Your task to perform on an android device: Search for the ikea sjalv lamp Image 0: 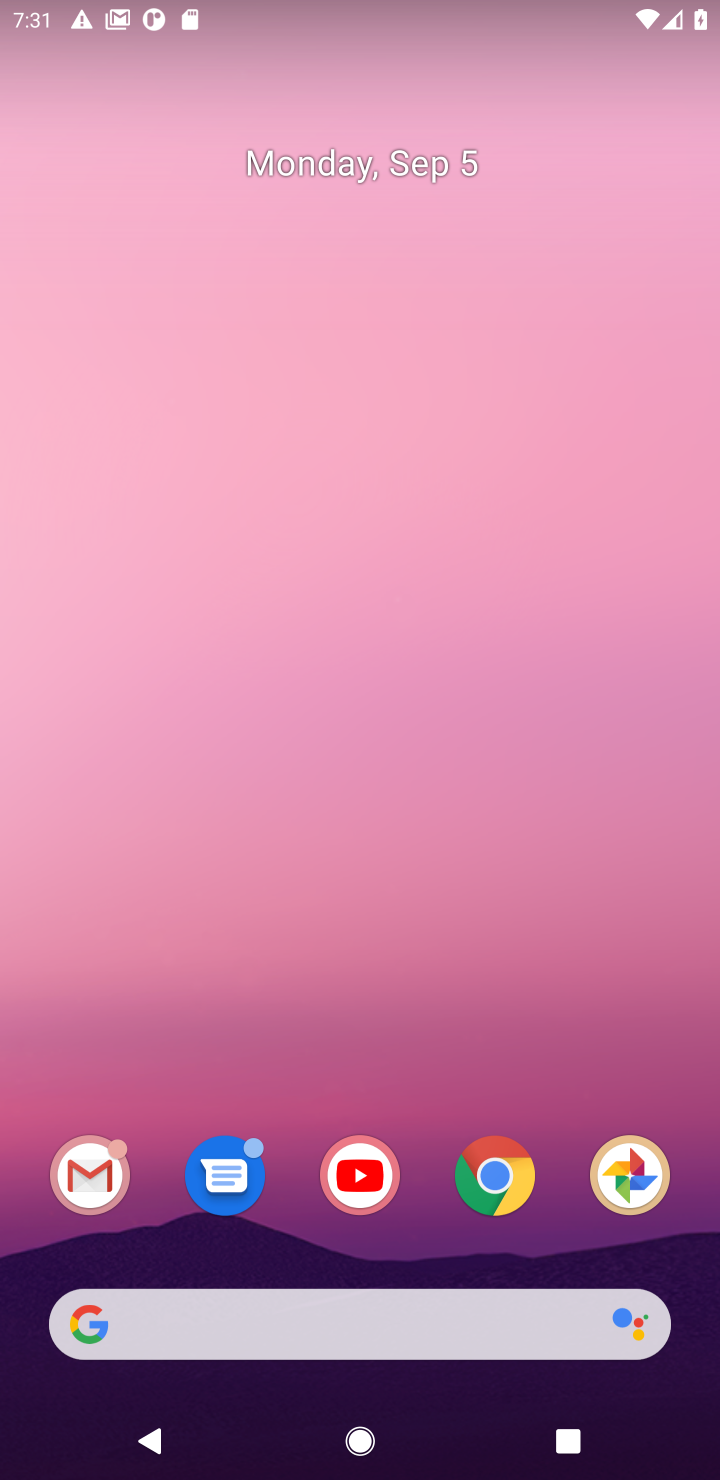
Step 0: click (373, 862)
Your task to perform on an android device: Search for the ikea sjalv lamp Image 1: 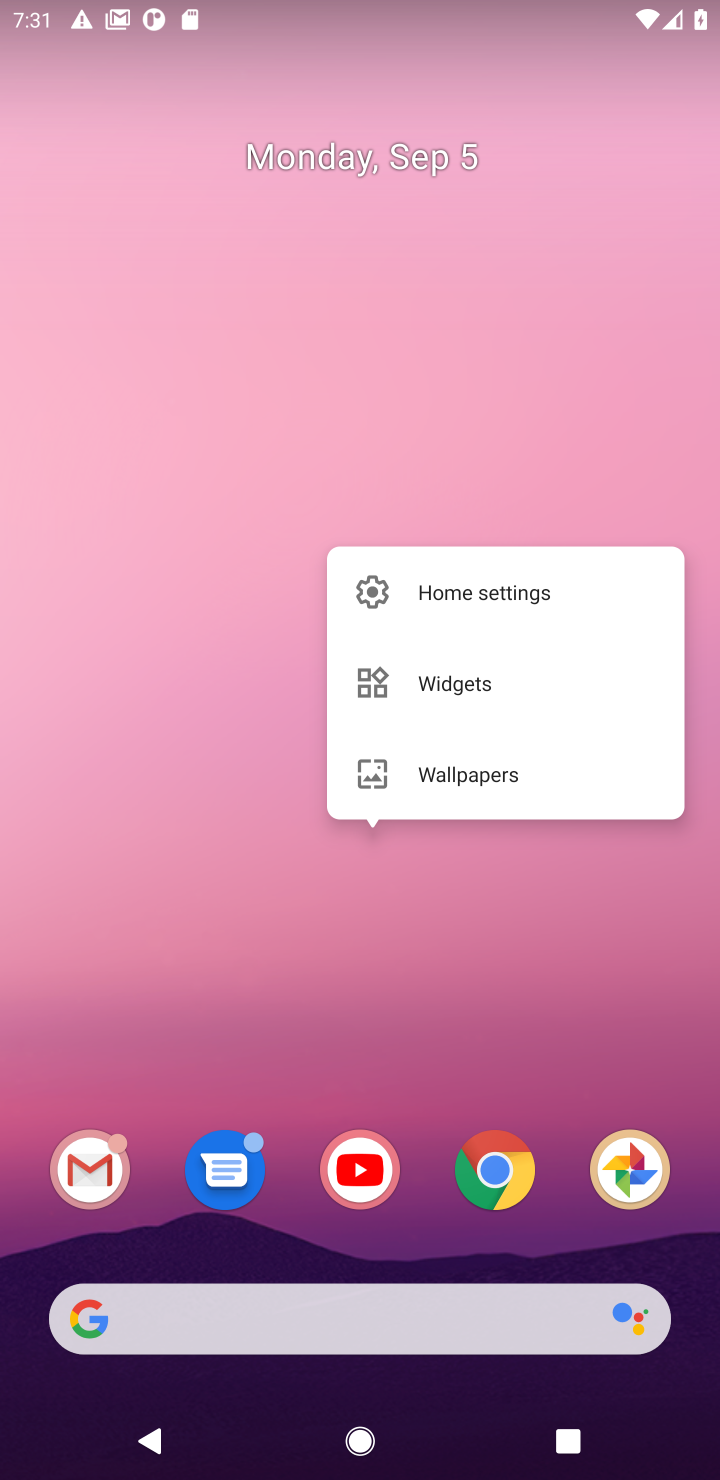
Step 1: click (498, 1174)
Your task to perform on an android device: Search for the ikea sjalv lamp Image 2: 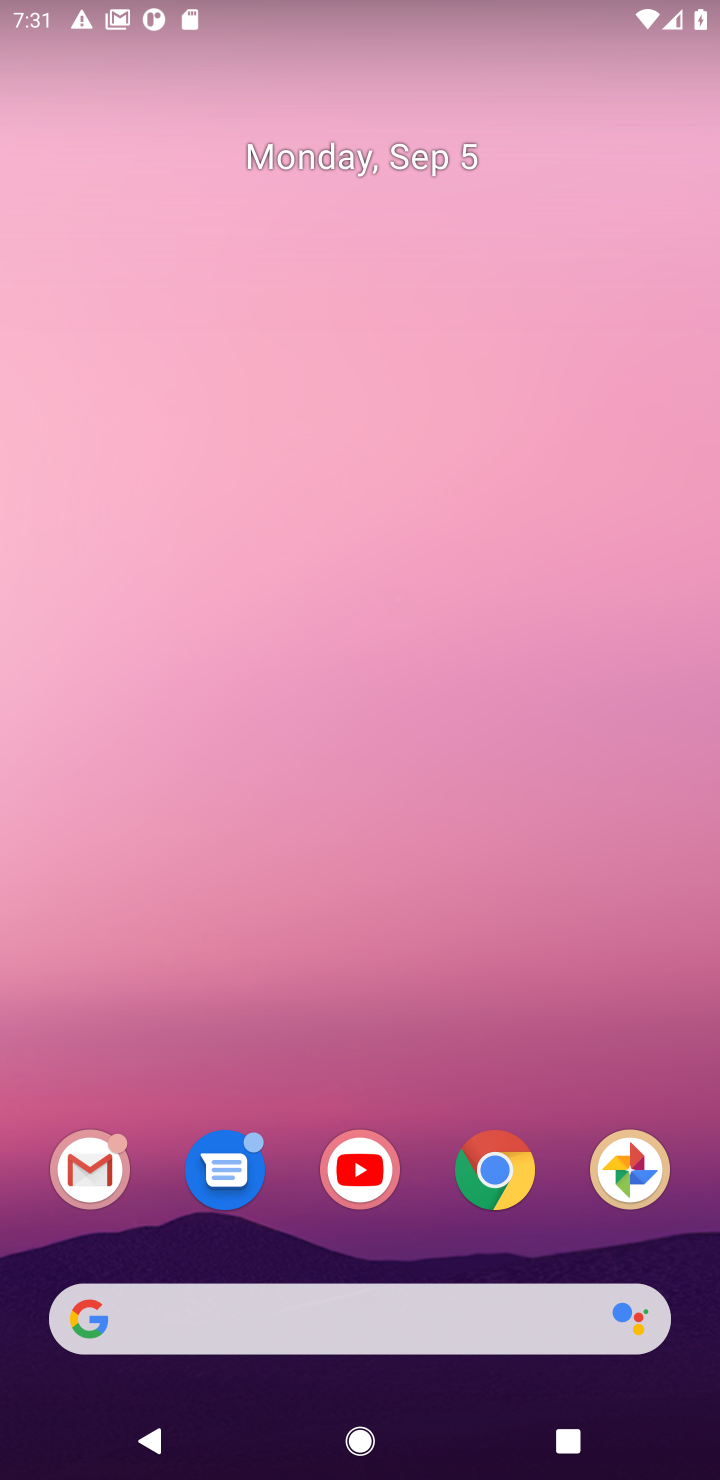
Step 2: click (490, 1178)
Your task to perform on an android device: Search for the ikea sjalv lamp Image 3: 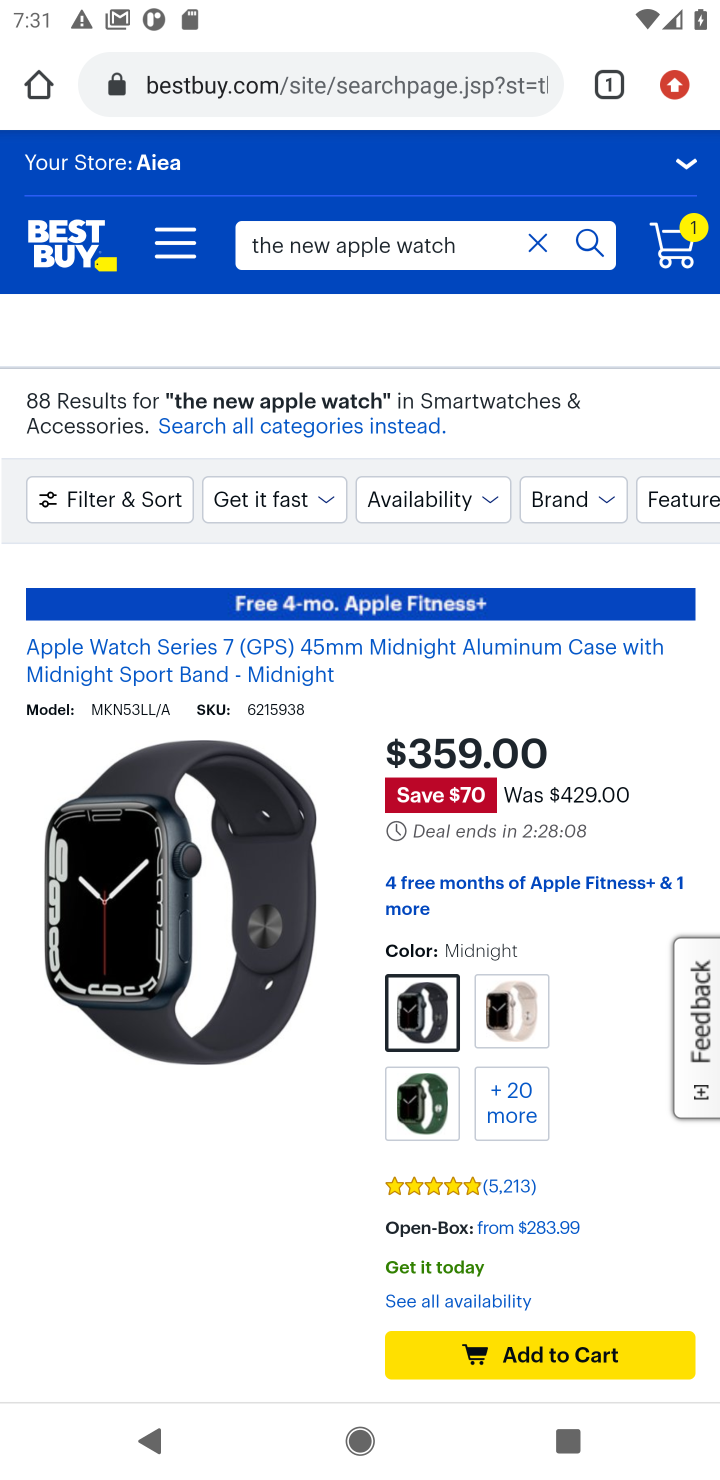
Step 3: click (263, 87)
Your task to perform on an android device: Search for the ikea sjalv lamp Image 4: 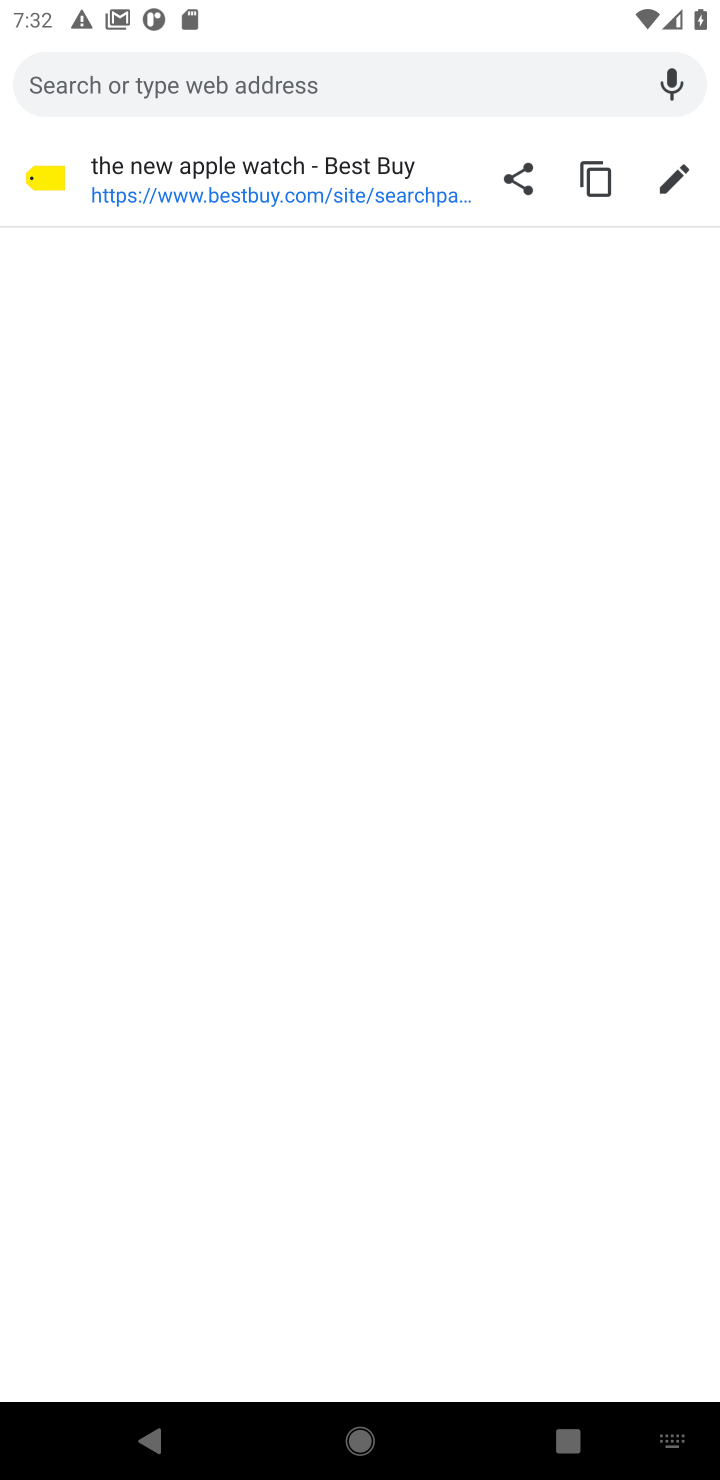
Step 4: type "the ikea sjalv lamp"
Your task to perform on an android device: Search for the ikea sjalv lamp Image 5: 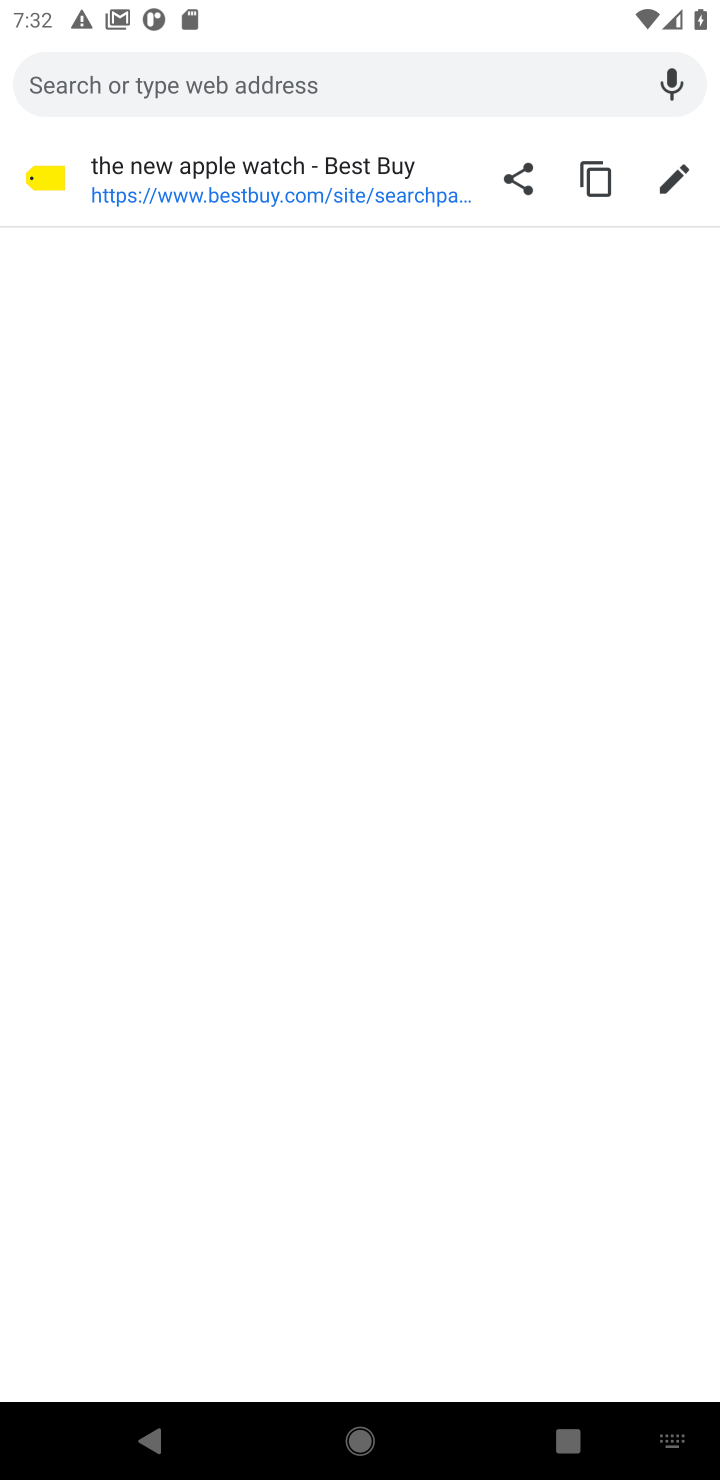
Step 5: click (423, 79)
Your task to perform on an android device: Search for the ikea sjalv lamp Image 6: 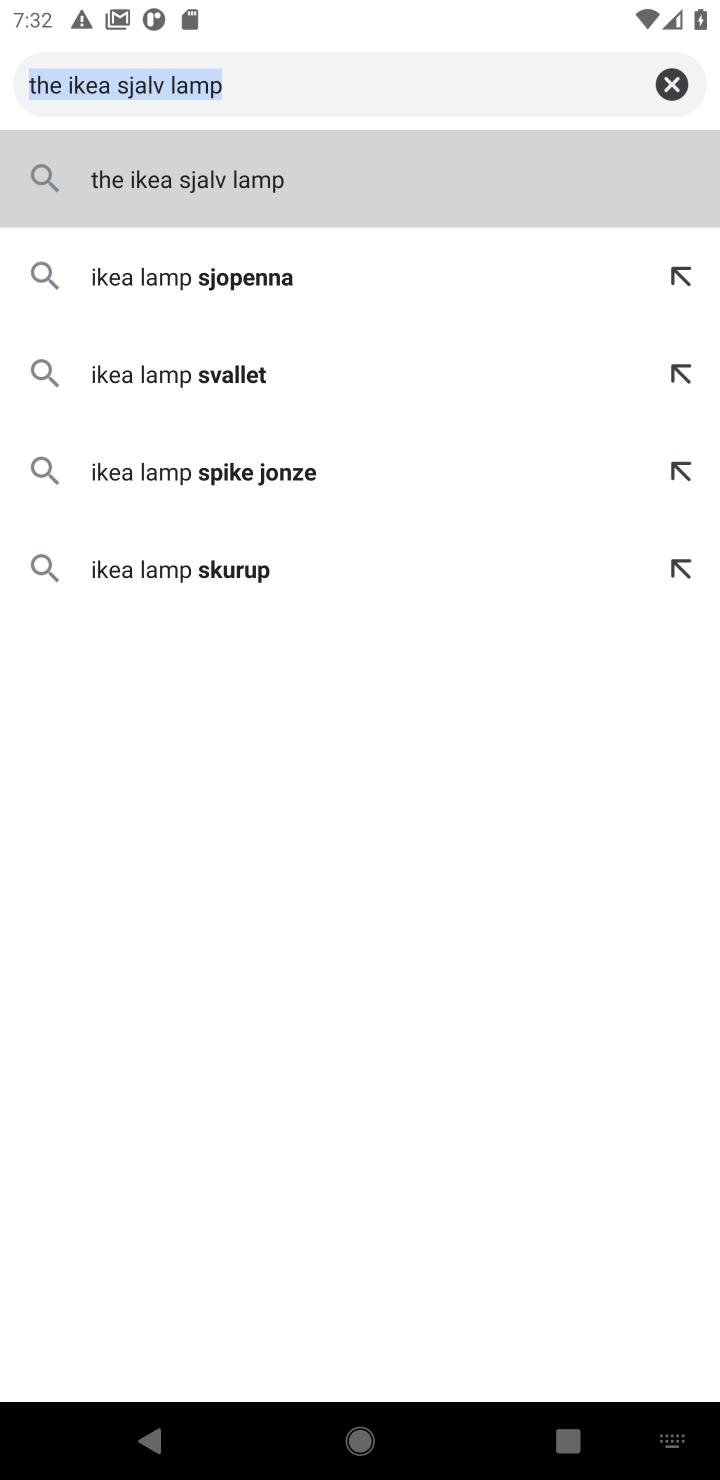
Step 6: click (296, 79)
Your task to perform on an android device: Search for the ikea sjalv lamp Image 7: 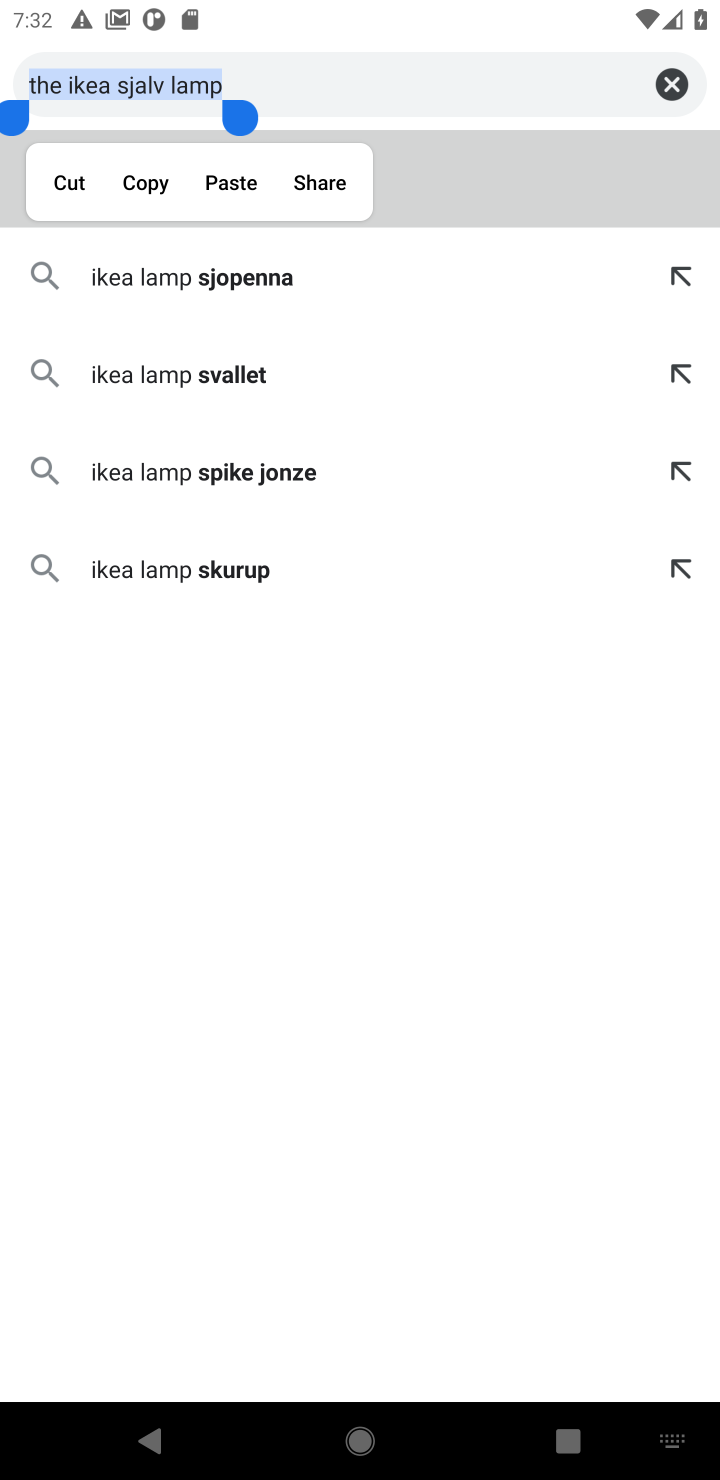
Step 7: click (263, 178)
Your task to perform on an android device: Search for the ikea sjalv lamp Image 8: 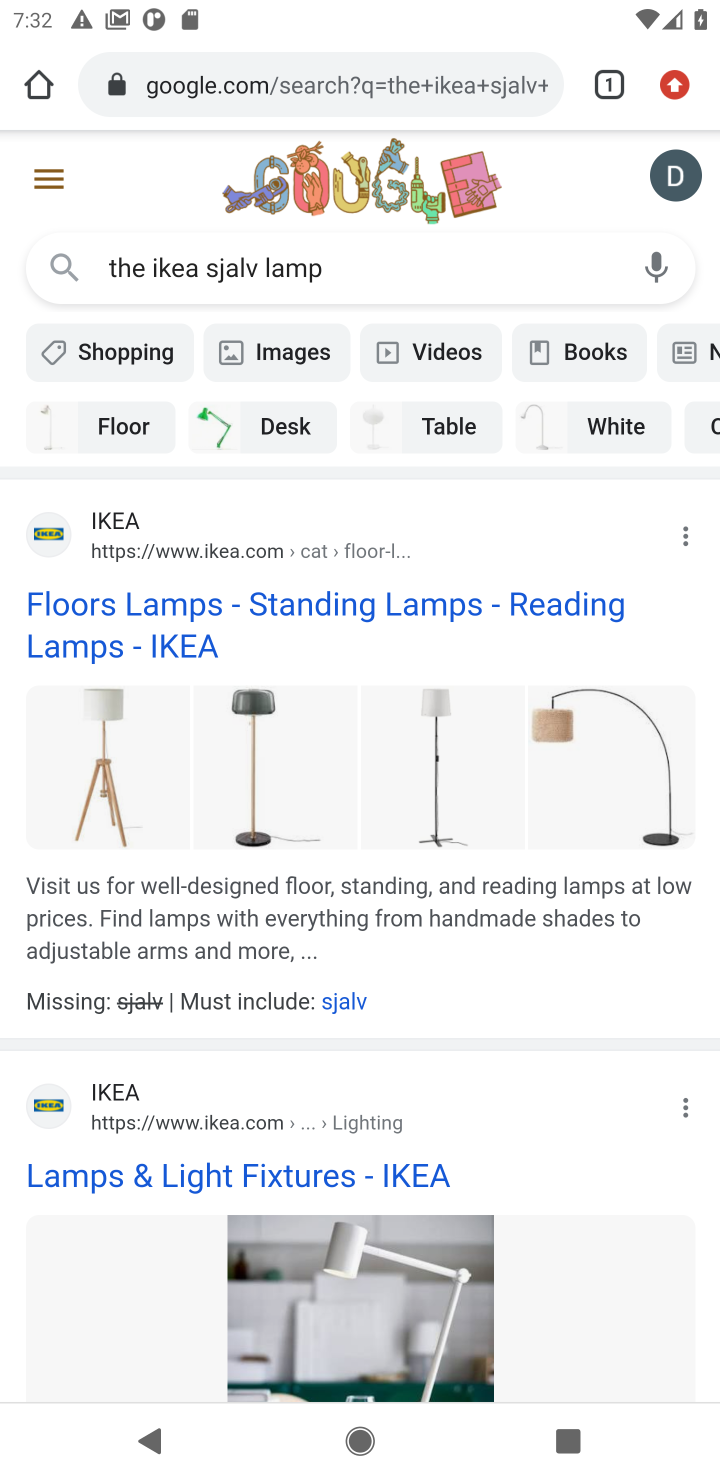
Step 8: task complete